Your task to perform on an android device: check battery use Image 0: 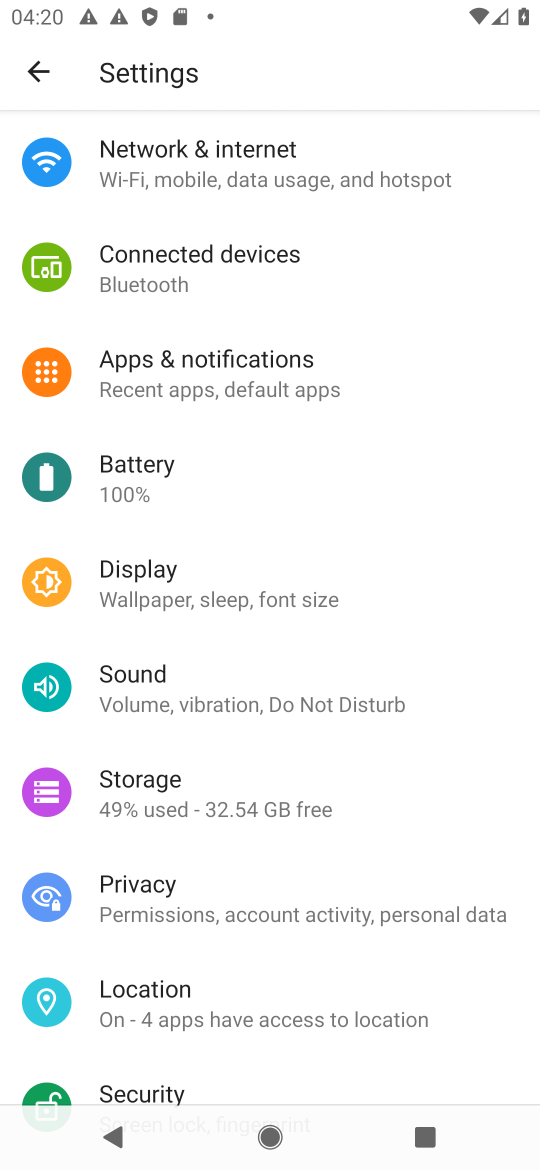
Step 0: click (143, 503)
Your task to perform on an android device: check battery use Image 1: 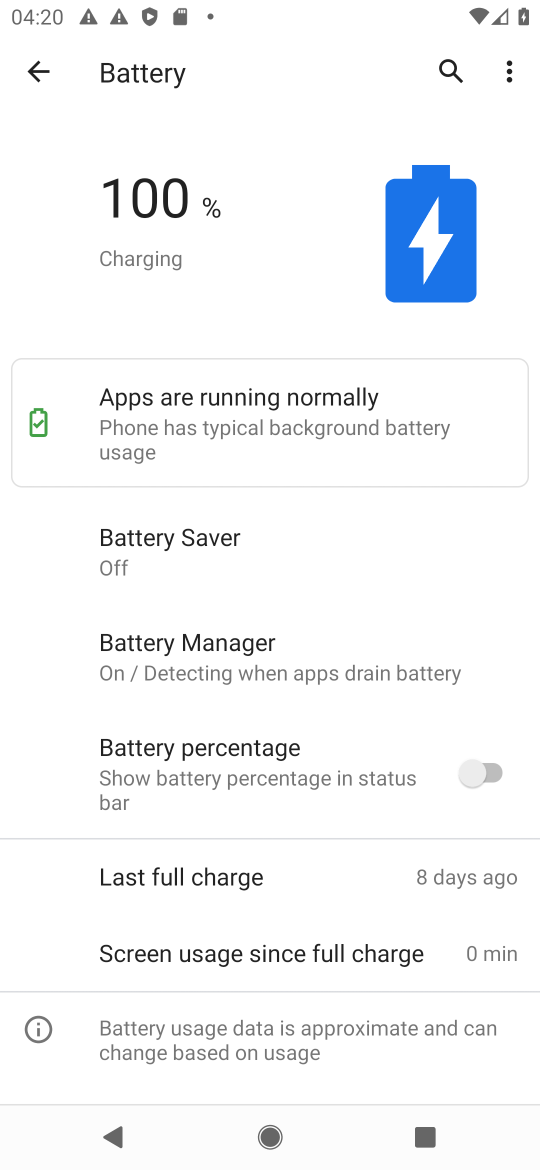
Step 1: click (509, 80)
Your task to perform on an android device: check battery use Image 2: 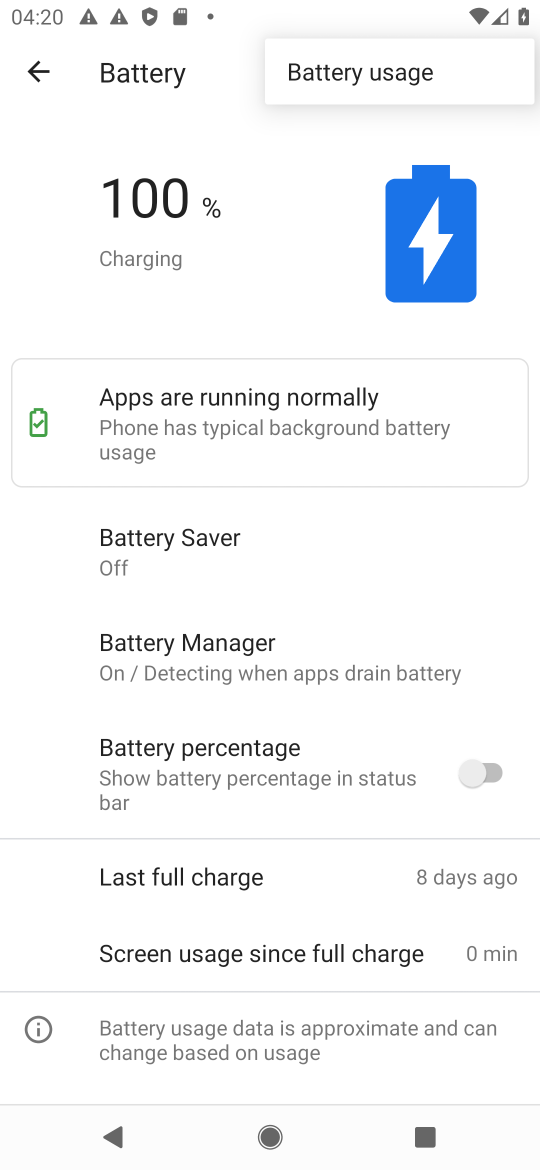
Step 2: click (334, 72)
Your task to perform on an android device: check battery use Image 3: 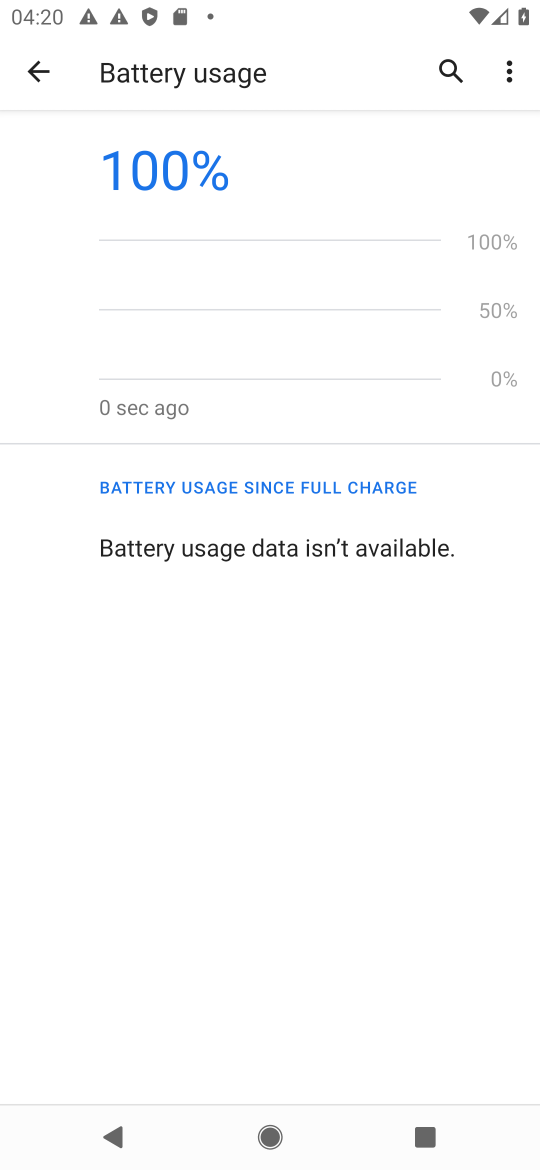
Step 3: task complete